Your task to perform on an android device: toggle data saver in the chrome app Image 0: 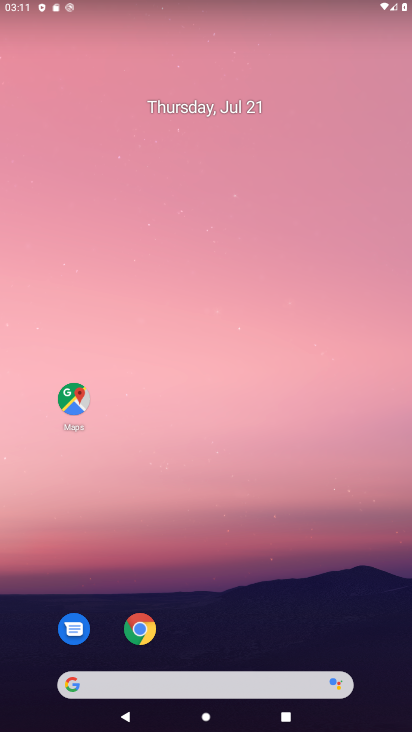
Step 0: press home button
Your task to perform on an android device: toggle data saver in the chrome app Image 1: 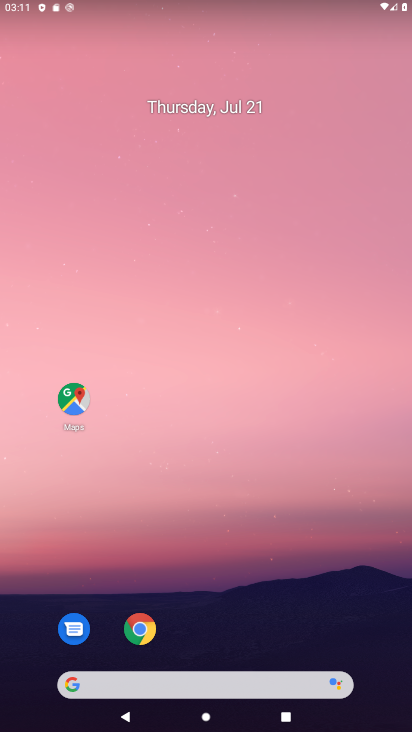
Step 1: drag from (289, 682) to (264, 137)
Your task to perform on an android device: toggle data saver in the chrome app Image 2: 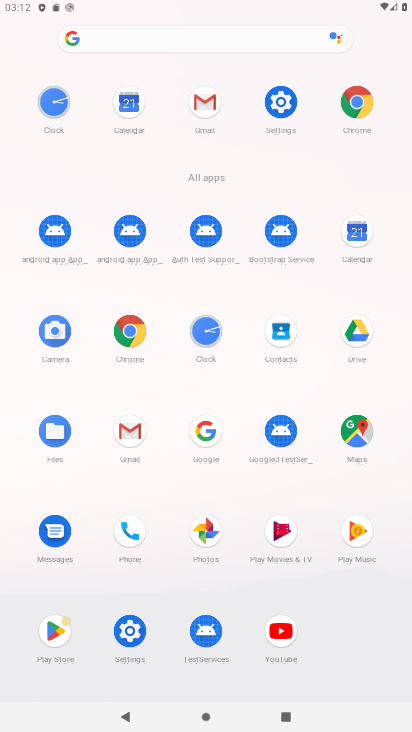
Step 2: click (137, 330)
Your task to perform on an android device: toggle data saver in the chrome app Image 3: 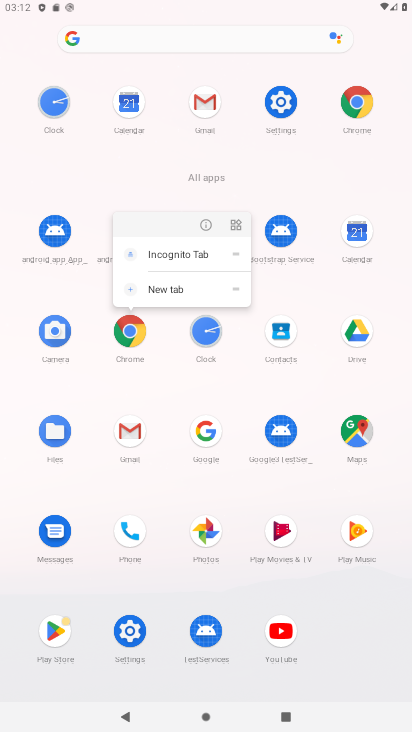
Step 3: click (137, 330)
Your task to perform on an android device: toggle data saver in the chrome app Image 4: 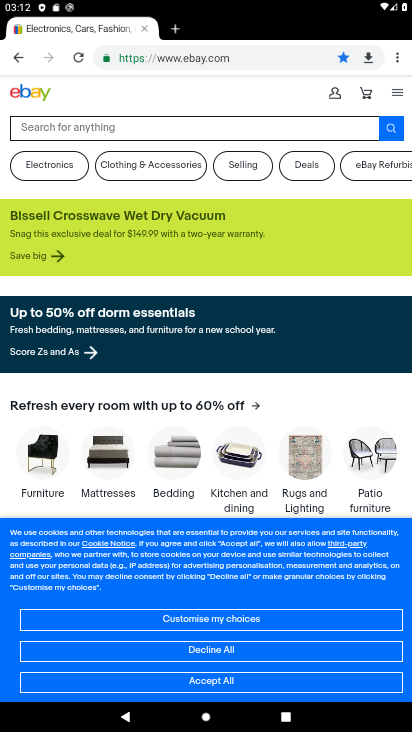
Step 4: drag from (396, 60) to (290, 383)
Your task to perform on an android device: toggle data saver in the chrome app Image 5: 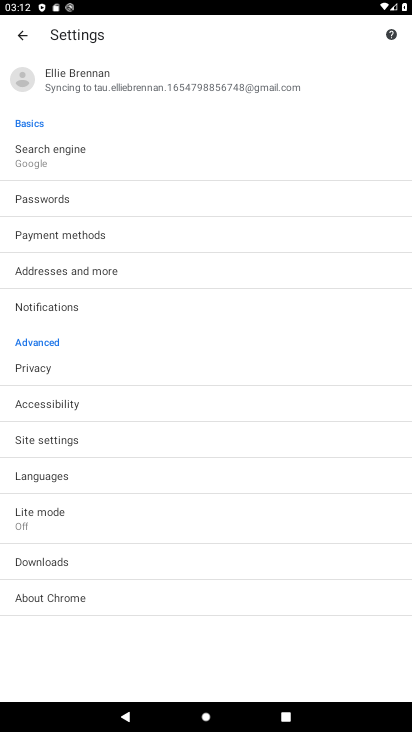
Step 5: click (39, 507)
Your task to perform on an android device: toggle data saver in the chrome app Image 6: 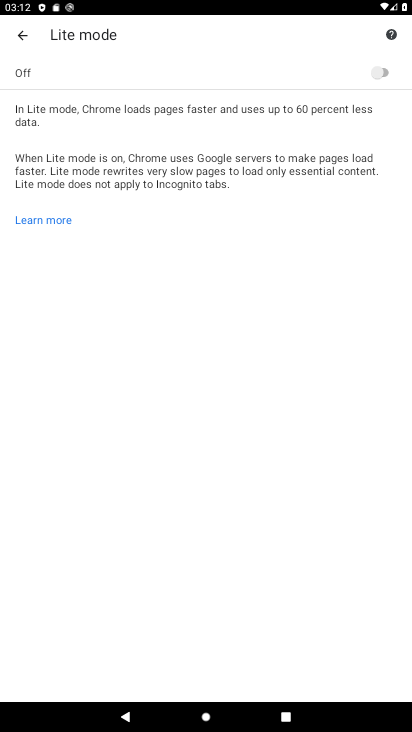
Step 6: click (299, 86)
Your task to perform on an android device: toggle data saver in the chrome app Image 7: 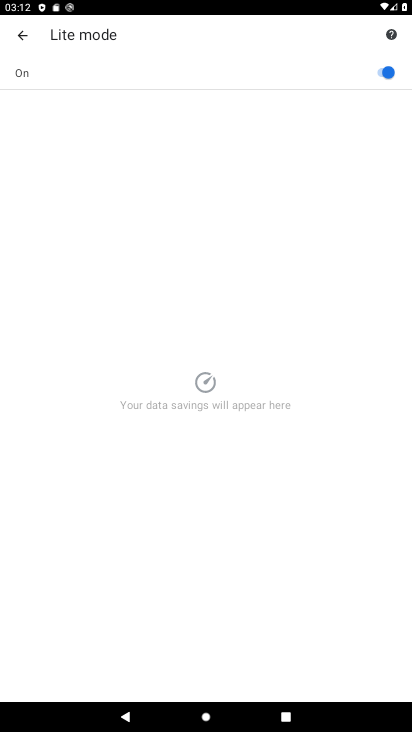
Step 7: task complete